Your task to perform on an android device: change the clock display to show seconds Image 0: 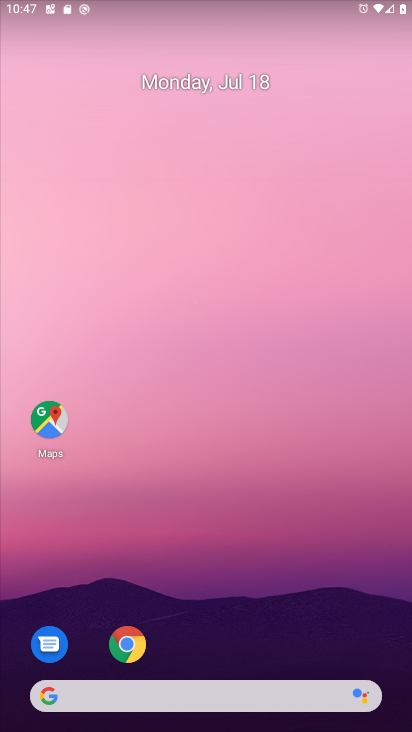
Step 0: drag from (220, 651) to (169, 67)
Your task to perform on an android device: change the clock display to show seconds Image 1: 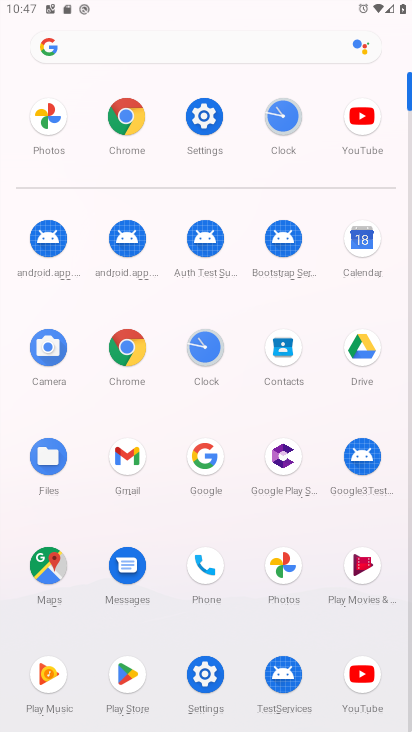
Step 1: click (268, 142)
Your task to perform on an android device: change the clock display to show seconds Image 2: 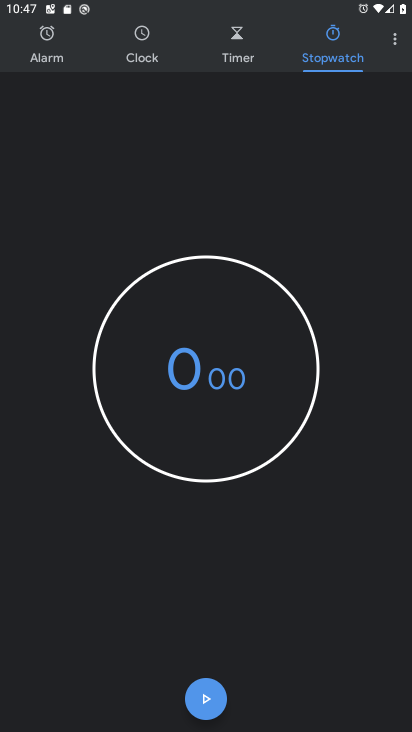
Step 2: task complete